Your task to perform on an android device: Open maps Image 0: 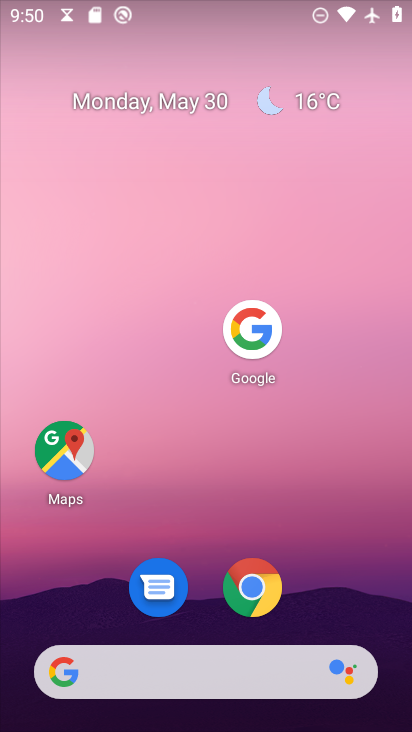
Step 0: click (60, 453)
Your task to perform on an android device: Open maps Image 1: 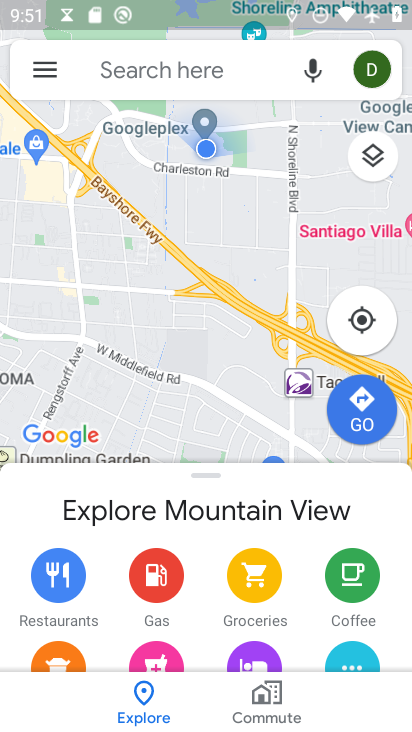
Step 1: task complete